Your task to perform on an android device: Search for a new grill on Home Depot Image 0: 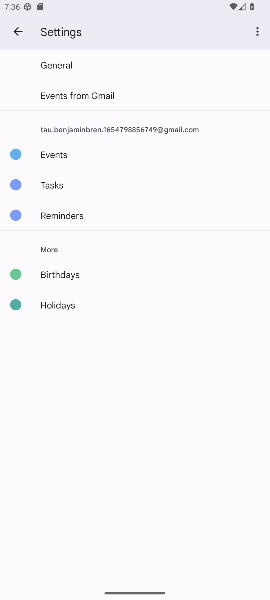
Step 0: press home button
Your task to perform on an android device: Search for a new grill on Home Depot Image 1: 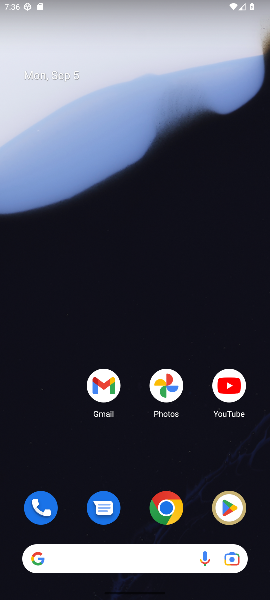
Step 1: click (168, 506)
Your task to perform on an android device: Search for a new grill on Home Depot Image 2: 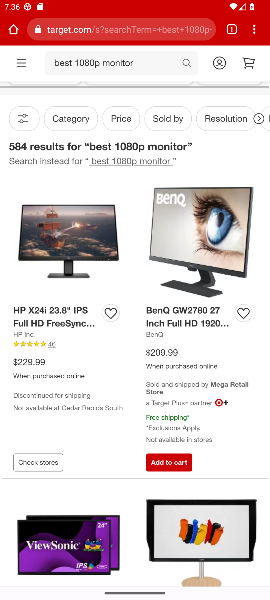
Step 2: click (158, 29)
Your task to perform on an android device: Search for a new grill on Home Depot Image 3: 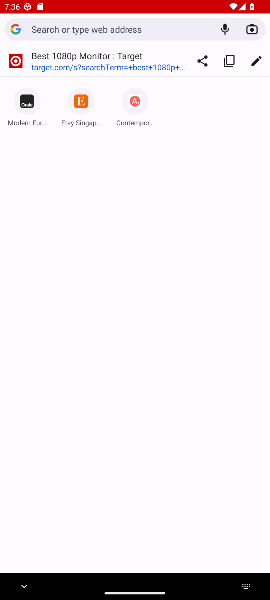
Step 3: type "Home Depot"
Your task to perform on an android device: Search for a new grill on Home Depot Image 4: 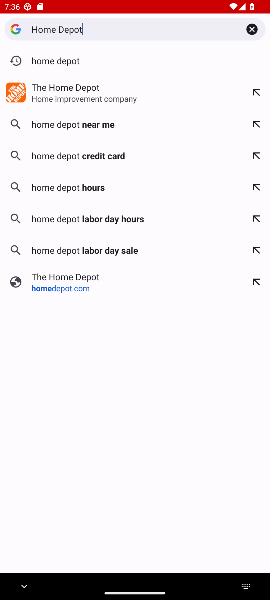
Step 4: click (42, 87)
Your task to perform on an android device: Search for a new grill on Home Depot Image 5: 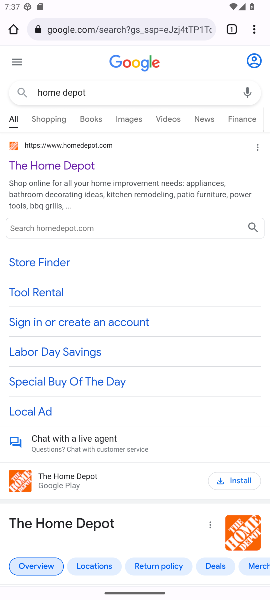
Step 5: click (45, 168)
Your task to perform on an android device: Search for a new grill on Home Depot Image 6: 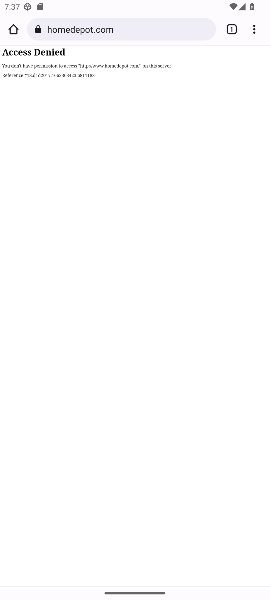
Step 6: task complete